Your task to perform on an android device: Open battery settings Image 0: 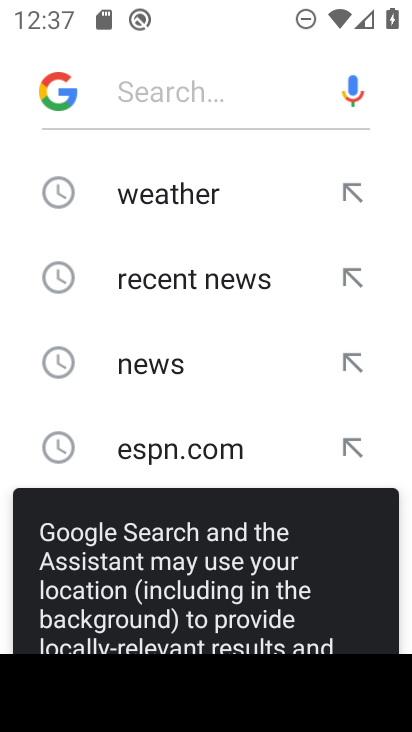
Step 0: press home button
Your task to perform on an android device: Open battery settings Image 1: 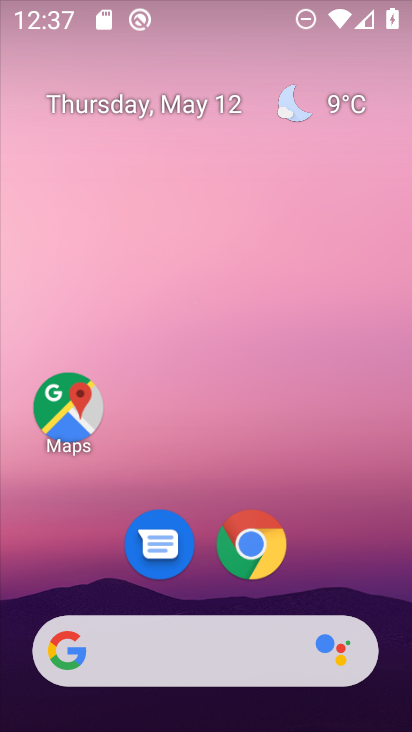
Step 1: drag from (213, 727) to (221, 178)
Your task to perform on an android device: Open battery settings Image 2: 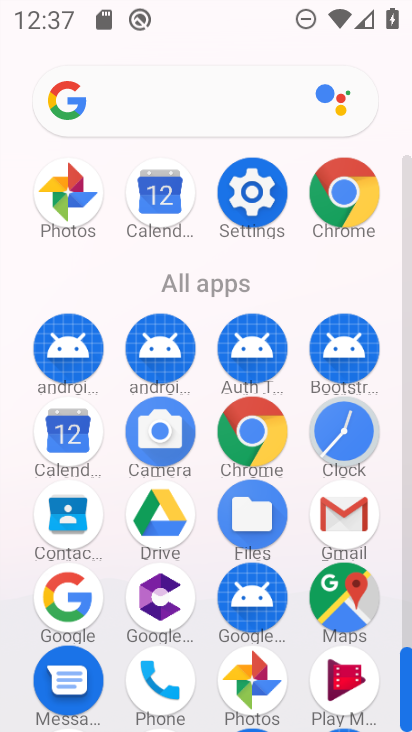
Step 2: click (249, 202)
Your task to perform on an android device: Open battery settings Image 3: 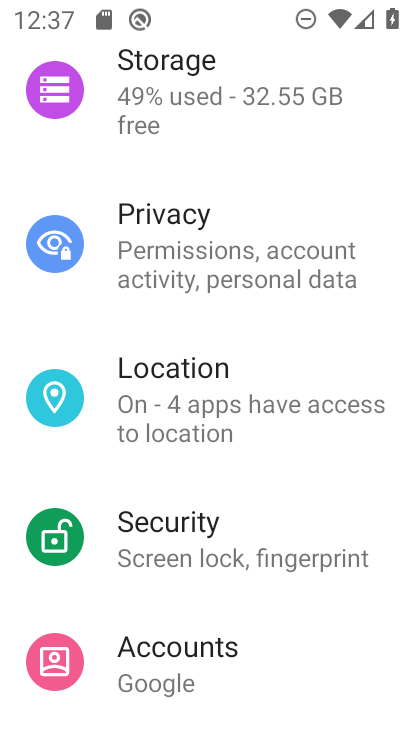
Step 3: drag from (208, 682) to (246, 205)
Your task to perform on an android device: Open battery settings Image 4: 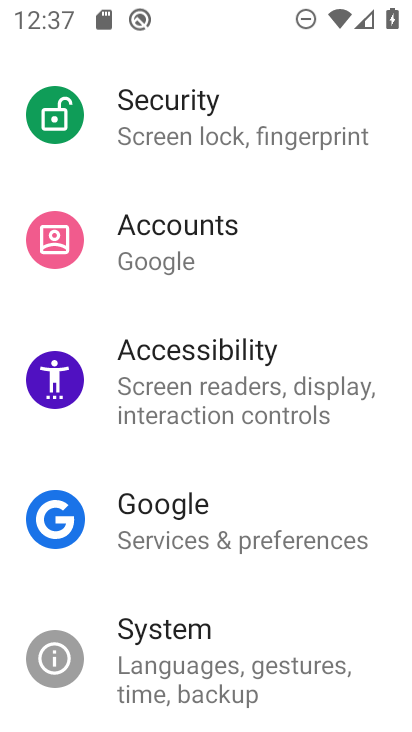
Step 4: drag from (192, 653) to (202, 209)
Your task to perform on an android device: Open battery settings Image 5: 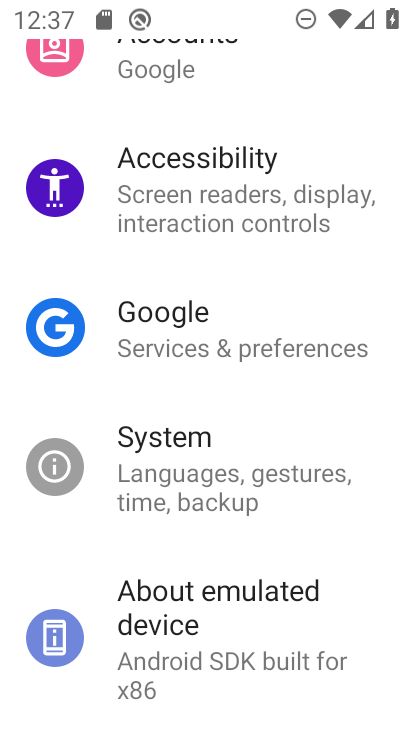
Step 5: drag from (238, 115) to (274, 613)
Your task to perform on an android device: Open battery settings Image 6: 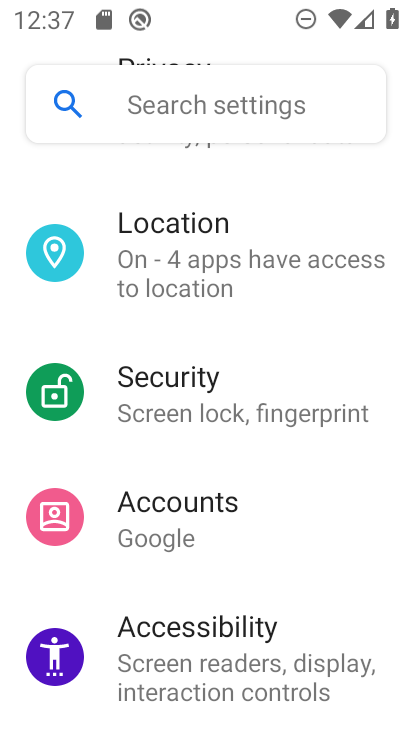
Step 6: drag from (283, 197) to (290, 573)
Your task to perform on an android device: Open battery settings Image 7: 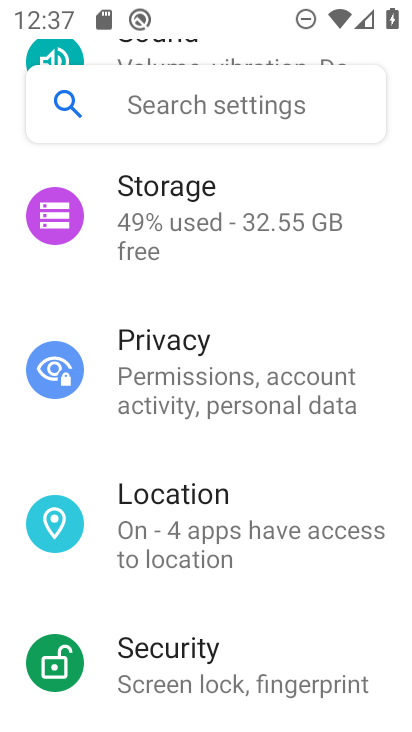
Step 7: drag from (259, 185) to (268, 534)
Your task to perform on an android device: Open battery settings Image 8: 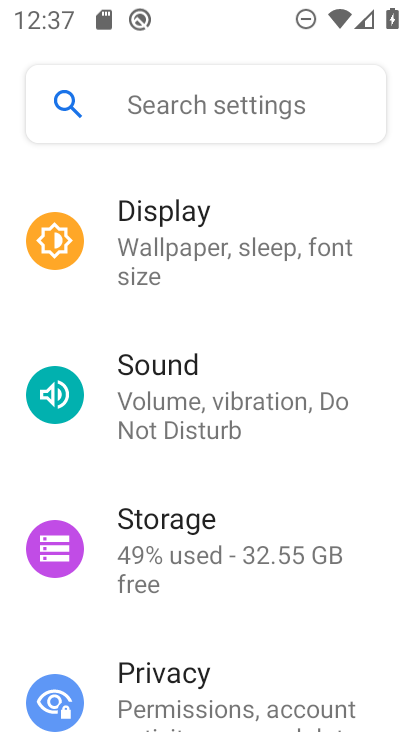
Step 8: drag from (234, 193) to (246, 535)
Your task to perform on an android device: Open battery settings Image 9: 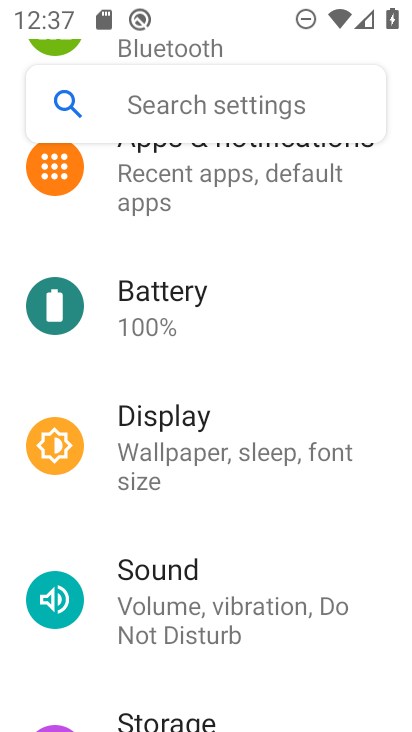
Step 9: click (159, 306)
Your task to perform on an android device: Open battery settings Image 10: 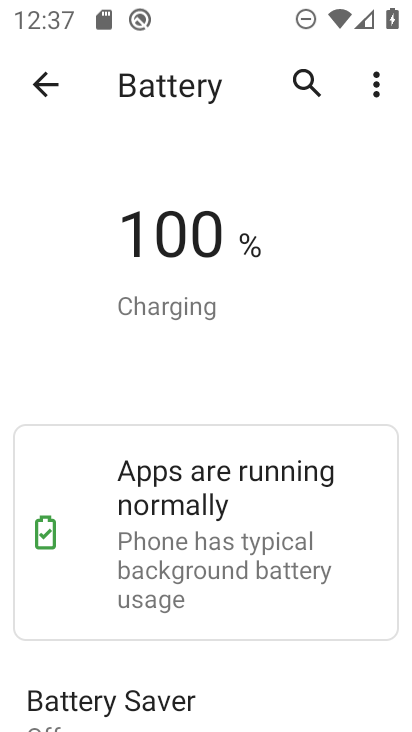
Step 10: task complete